Your task to perform on an android device: turn on notifications settings in the gmail app Image 0: 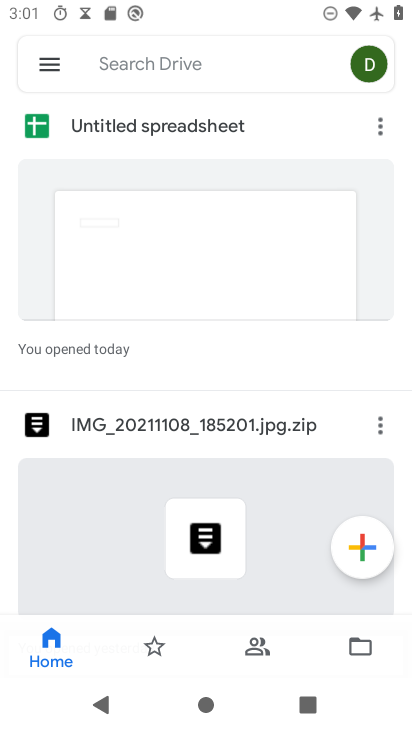
Step 0: press home button
Your task to perform on an android device: turn on notifications settings in the gmail app Image 1: 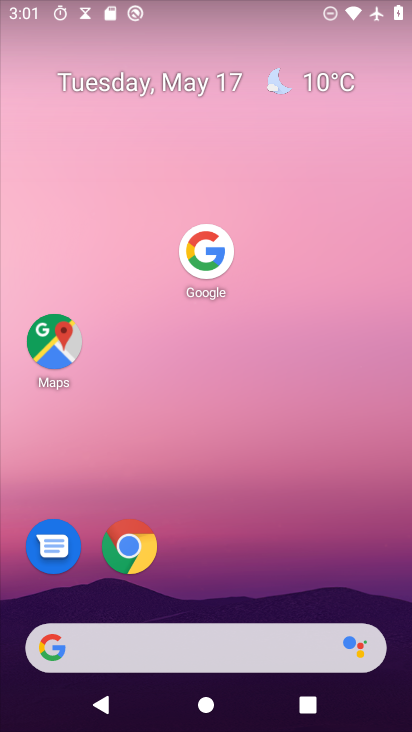
Step 1: drag from (175, 532) to (321, 61)
Your task to perform on an android device: turn on notifications settings in the gmail app Image 2: 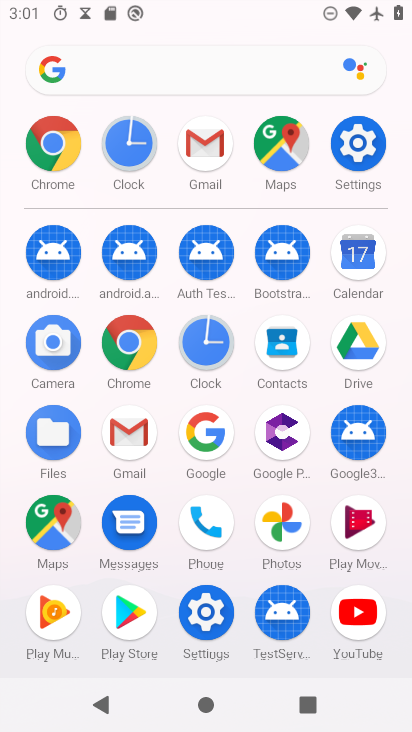
Step 2: click (206, 162)
Your task to perform on an android device: turn on notifications settings in the gmail app Image 3: 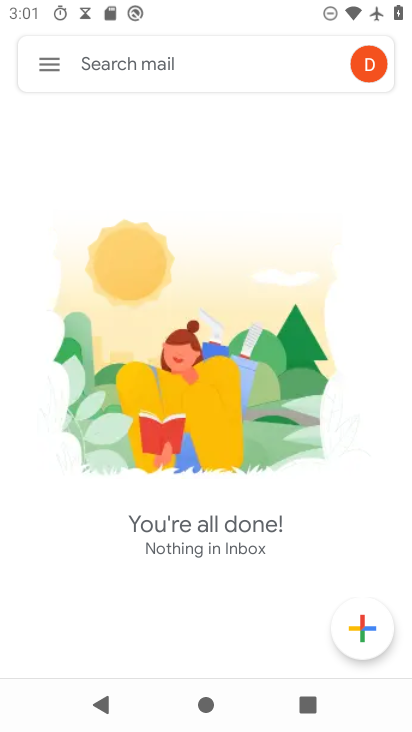
Step 3: click (50, 67)
Your task to perform on an android device: turn on notifications settings in the gmail app Image 4: 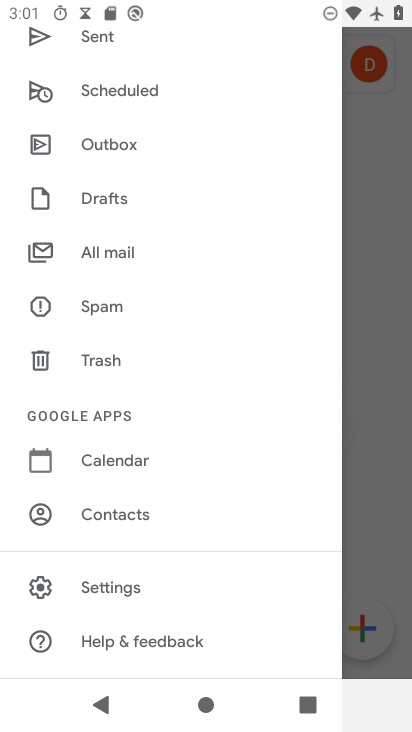
Step 4: click (118, 592)
Your task to perform on an android device: turn on notifications settings in the gmail app Image 5: 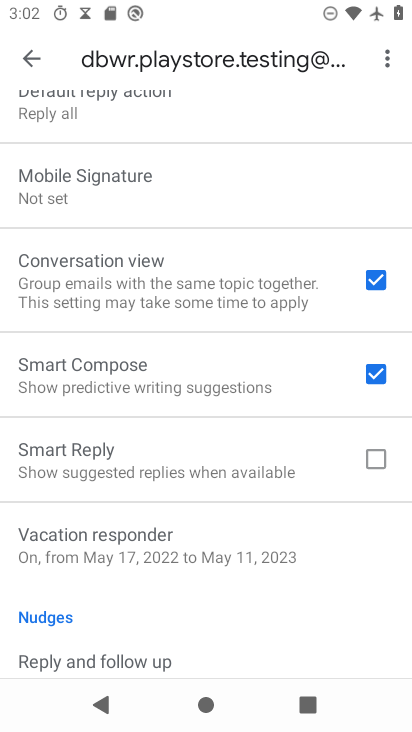
Step 5: drag from (287, 169) to (255, 635)
Your task to perform on an android device: turn on notifications settings in the gmail app Image 6: 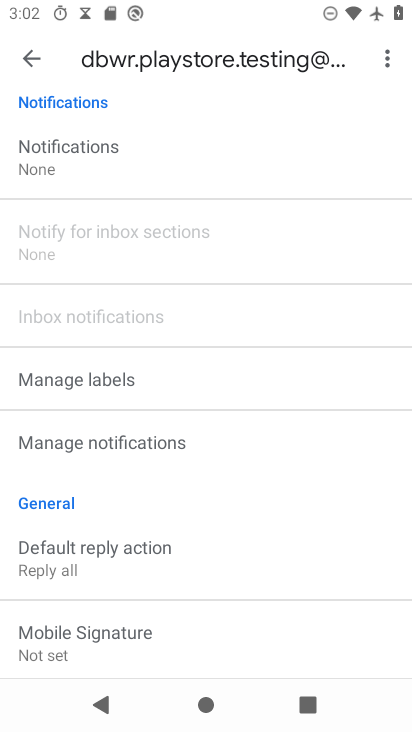
Step 6: click (64, 151)
Your task to perform on an android device: turn on notifications settings in the gmail app Image 7: 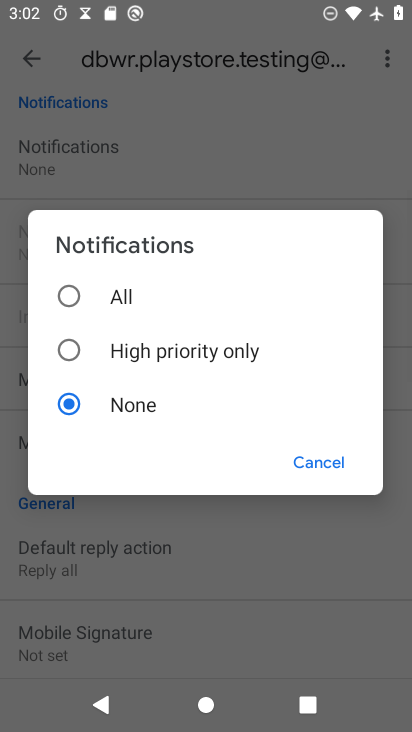
Step 7: click (73, 298)
Your task to perform on an android device: turn on notifications settings in the gmail app Image 8: 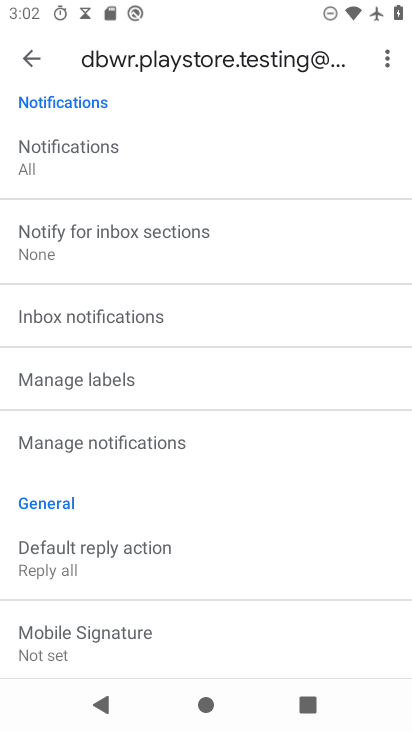
Step 8: task complete